Your task to perform on an android device: find snoozed emails in the gmail app Image 0: 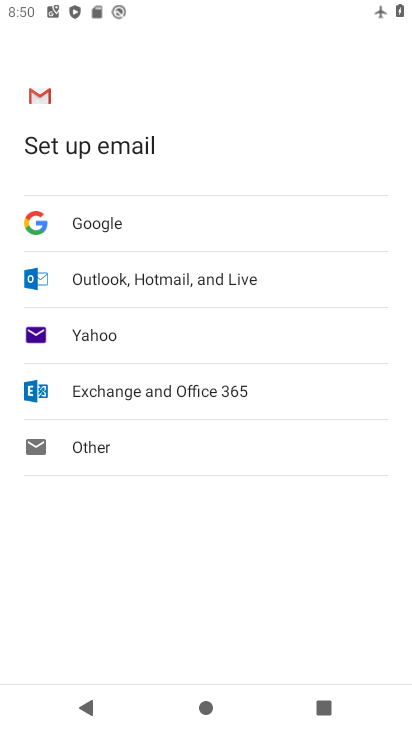
Step 0: press home button
Your task to perform on an android device: find snoozed emails in the gmail app Image 1: 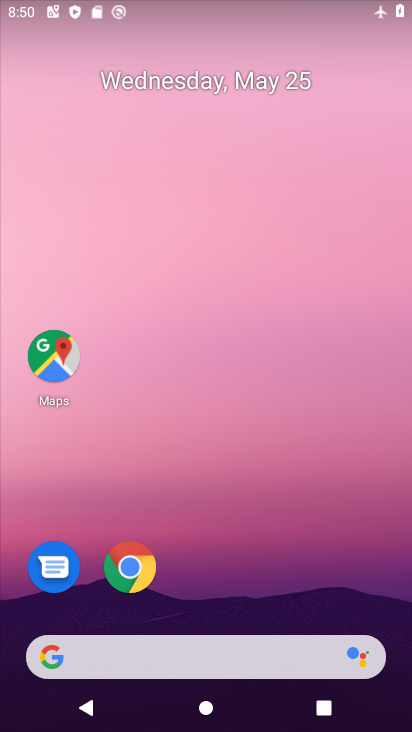
Step 1: drag from (206, 530) to (227, 46)
Your task to perform on an android device: find snoozed emails in the gmail app Image 2: 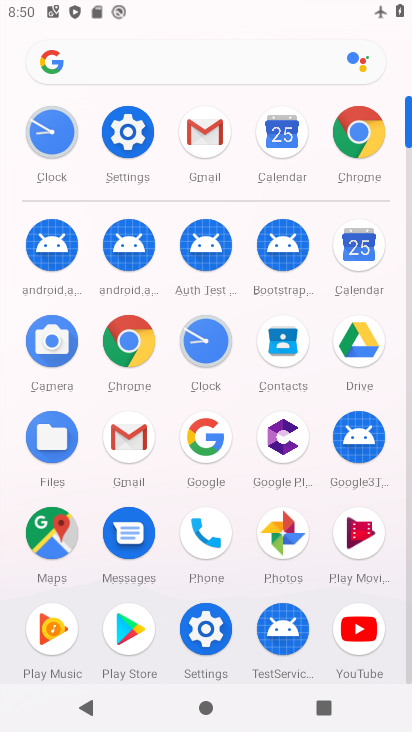
Step 2: click (203, 130)
Your task to perform on an android device: find snoozed emails in the gmail app Image 3: 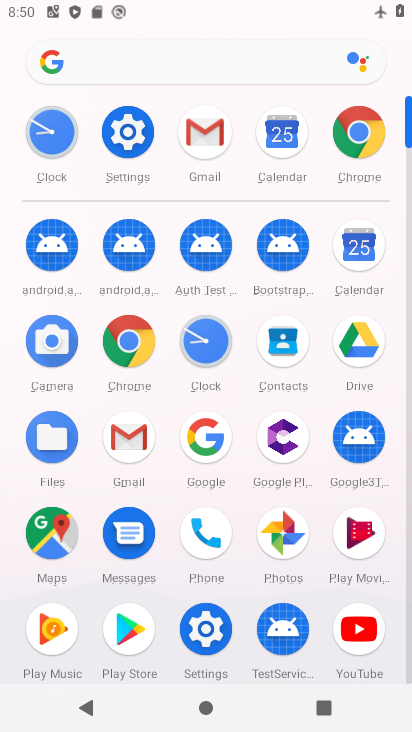
Step 3: click (203, 130)
Your task to perform on an android device: find snoozed emails in the gmail app Image 4: 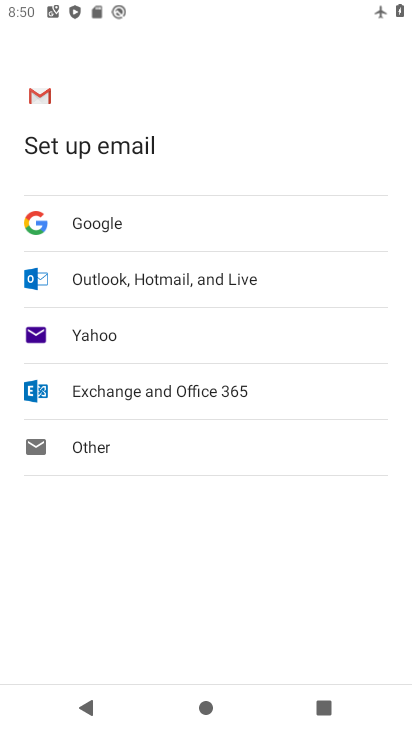
Step 4: press home button
Your task to perform on an android device: find snoozed emails in the gmail app Image 5: 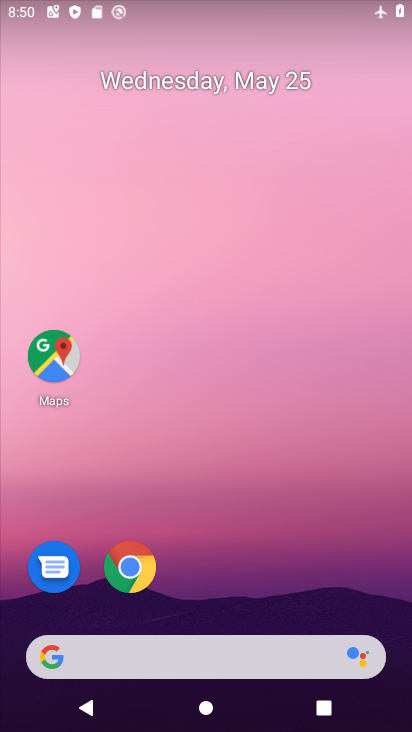
Step 5: drag from (265, 547) to (226, 17)
Your task to perform on an android device: find snoozed emails in the gmail app Image 6: 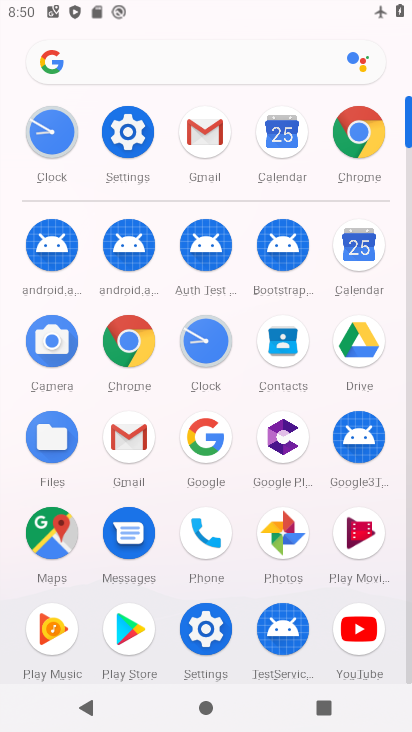
Step 6: click (210, 133)
Your task to perform on an android device: find snoozed emails in the gmail app Image 7: 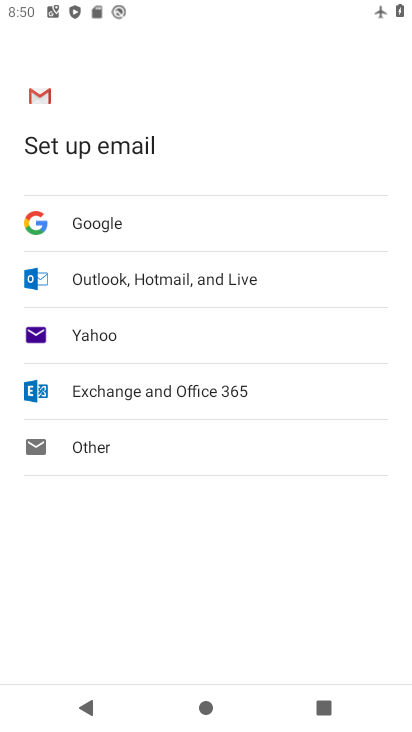
Step 7: click (120, 224)
Your task to perform on an android device: find snoozed emails in the gmail app Image 8: 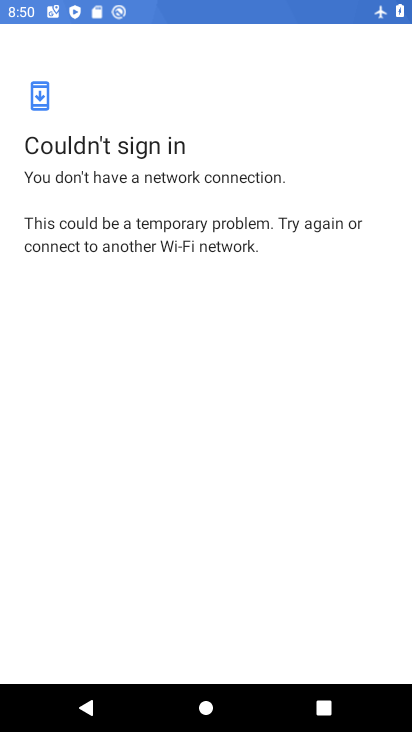
Step 8: press home button
Your task to perform on an android device: find snoozed emails in the gmail app Image 9: 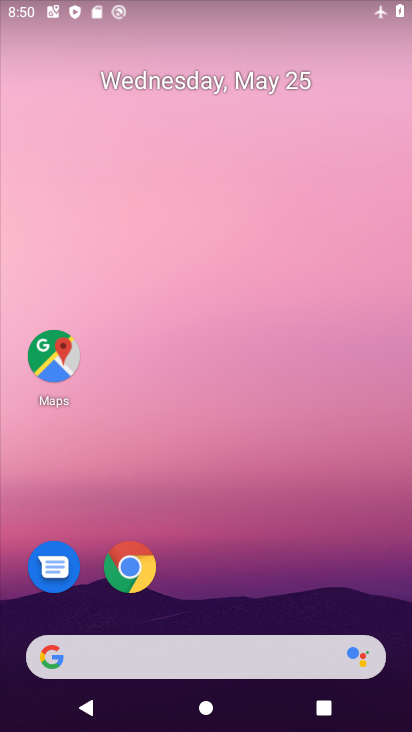
Step 9: drag from (256, 563) to (256, 44)
Your task to perform on an android device: find snoozed emails in the gmail app Image 10: 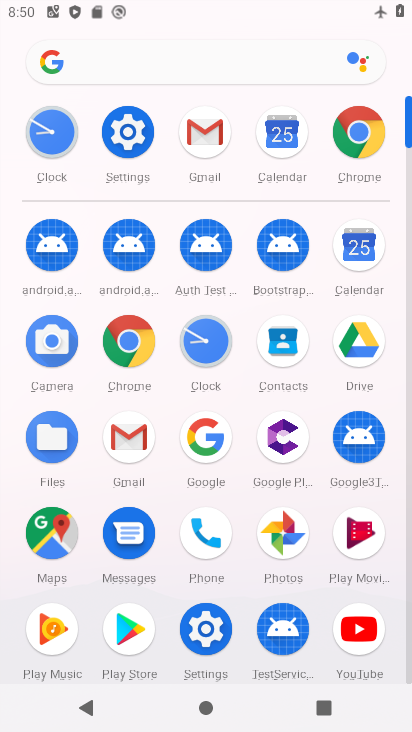
Step 10: click (209, 131)
Your task to perform on an android device: find snoozed emails in the gmail app Image 11: 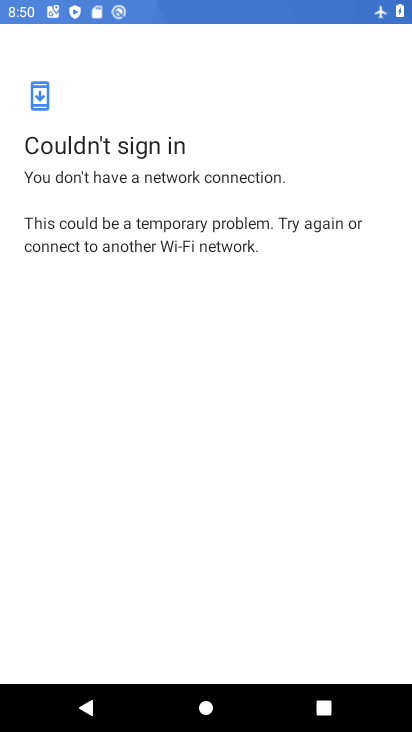
Step 11: press back button
Your task to perform on an android device: find snoozed emails in the gmail app Image 12: 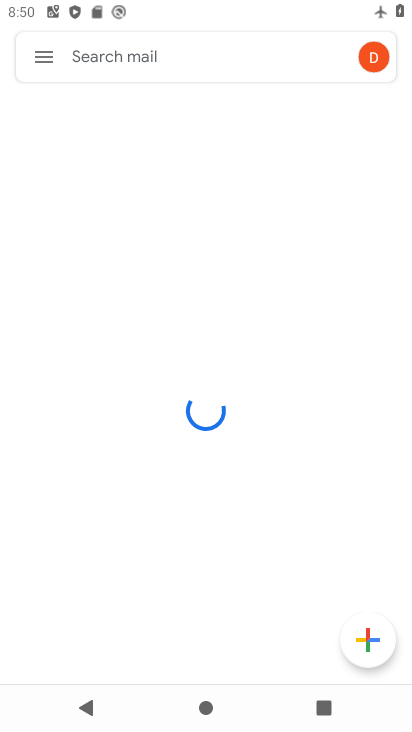
Step 12: press back button
Your task to perform on an android device: find snoozed emails in the gmail app Image 13: 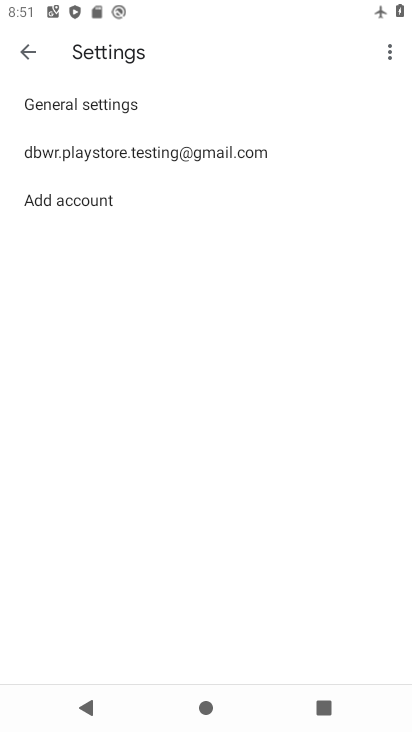
Step 13: press back button
Your task to perform on an android device: find snoozed emails in the gmail app Image 14: 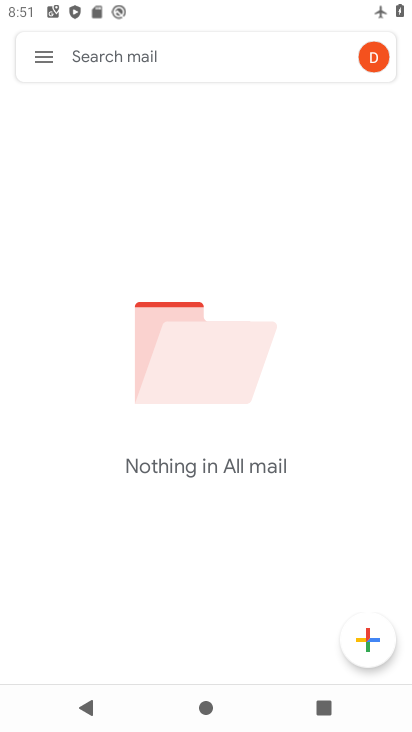
Step 14: click (42, 51)
Your task to perform on an android device: find snoozed emails in the gmail app Image 15: 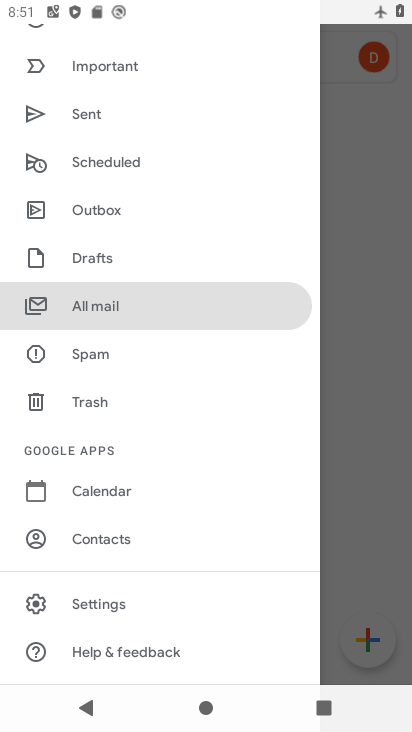
Step 15: drag from (167, 193) to (172, 471)
Your task to perform on an android device: find snoozed emails in the gmail app Image 16: 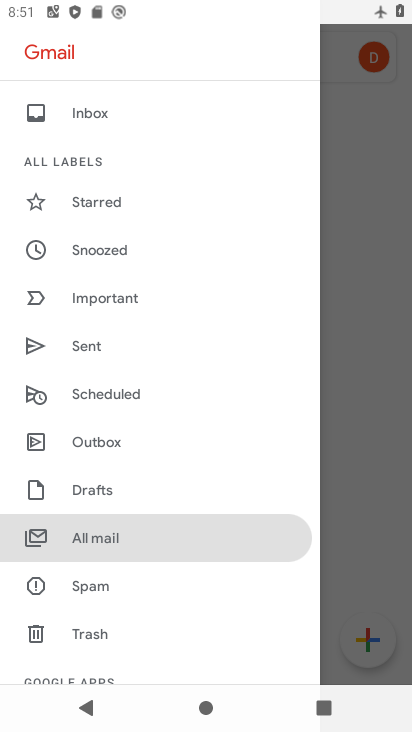
Step 16: click (150, 241)
Your task to perform on an android device: find snoozed emails in the gmail app Image 17: 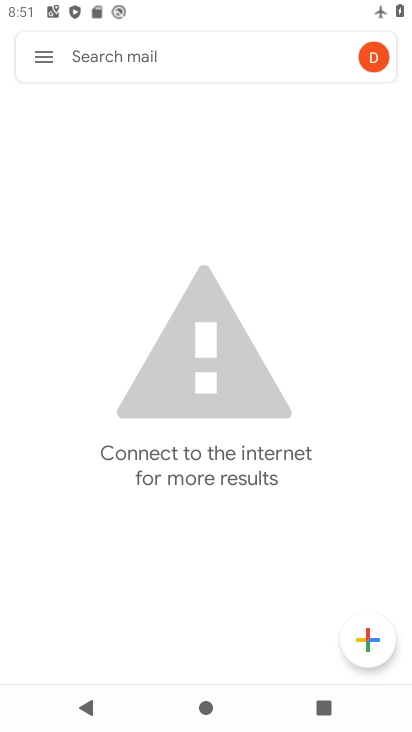
Step 17: task complete